Your task to perform on an android device: Open Google Chrome and click the shortcut for Amazon.com Image 0: 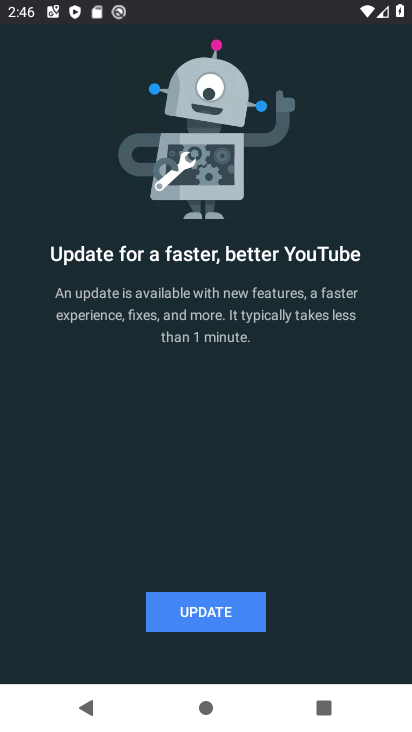
Step 0: press home button
Your task to perform on an android device: Open Google Chrome and click the shortcut for Amazon.com Image 1: 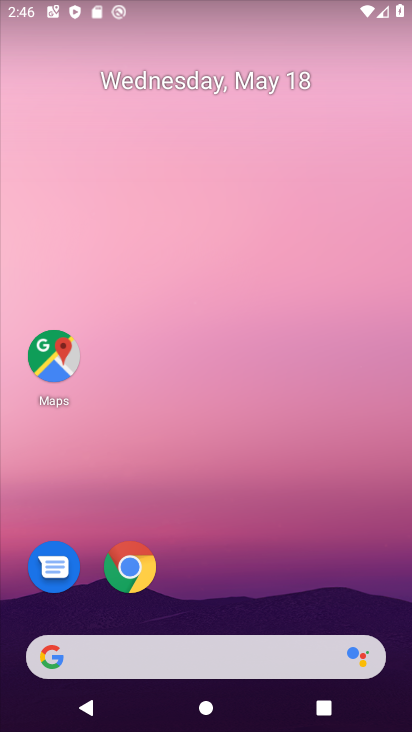
Step 1: click (120, 580)
Your task to perform on an android device: Open Google Chrome and click the shortcut for Amazon.com Image 2: 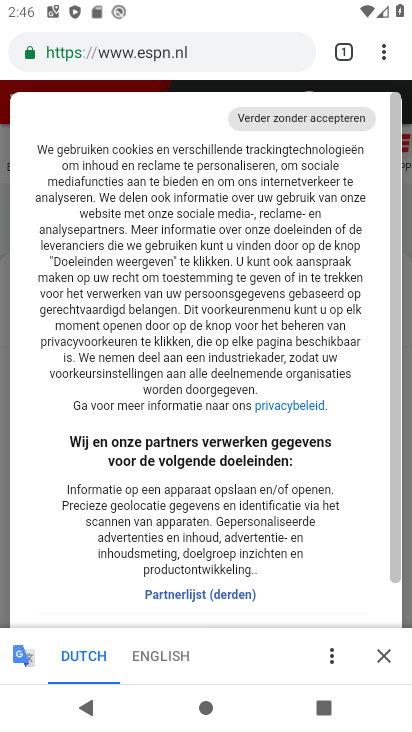
Step 2: press back button
Your task to perform on an android device: Open Google Chrome and click the shortcut for Amazon.com Image 3: 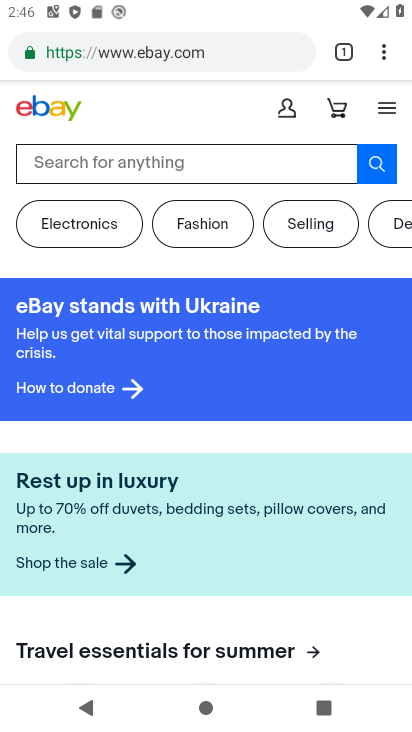
Step 3: press back button
Your task to perform on an android device: Open Google Chrome and click the shortcut for Amazon.com Image 4: 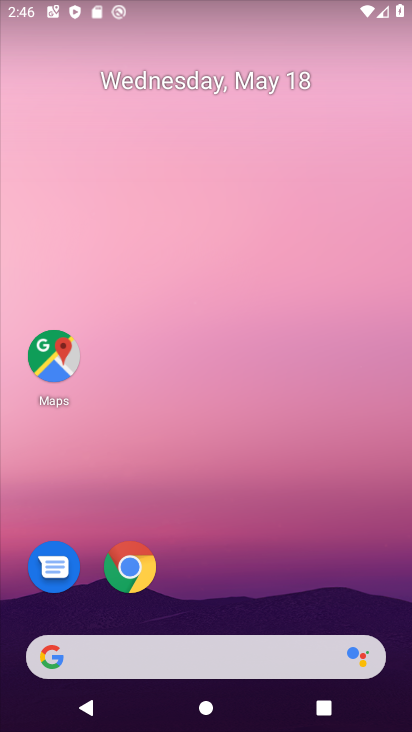
Step 4: drag from (265, 588) to (326, 297)
Your task to perform on an android device: Open Google Chrome and click the shortcut for Amazon.com Image 5: 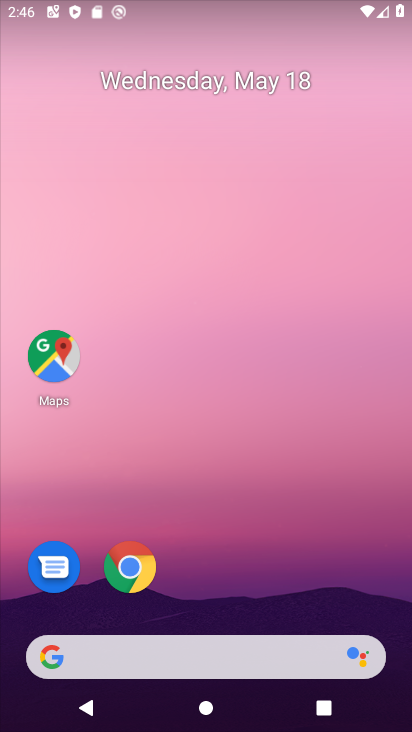
Step 5: drag from (180, 584) to (227, 0)
Your task to perform on an android device: Open Google Chrome and click the shortcut for Amazon.com Image 6: 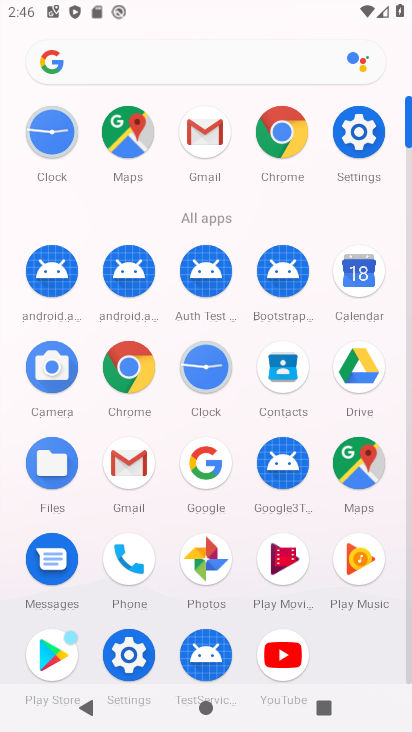
Step 6: click (279, 188)
Your task to perform on an android device: Open Google Chrome and click the shortcut for Amazon.com Image 7: 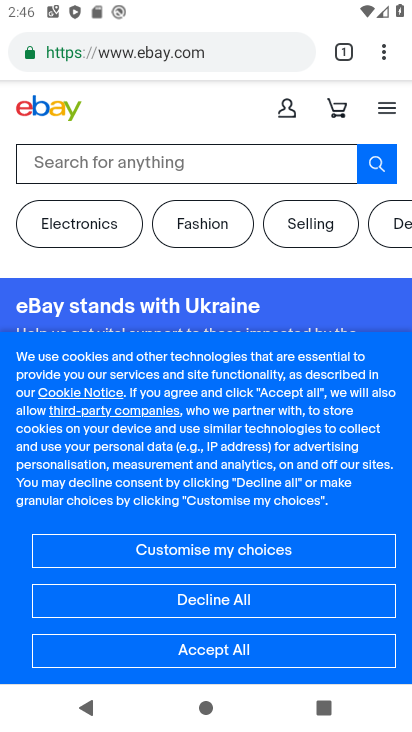
Step 7: press back button
Your task to perform on an android device: Open Google Chrome and click the shortcut for Amazon.com Image 8: 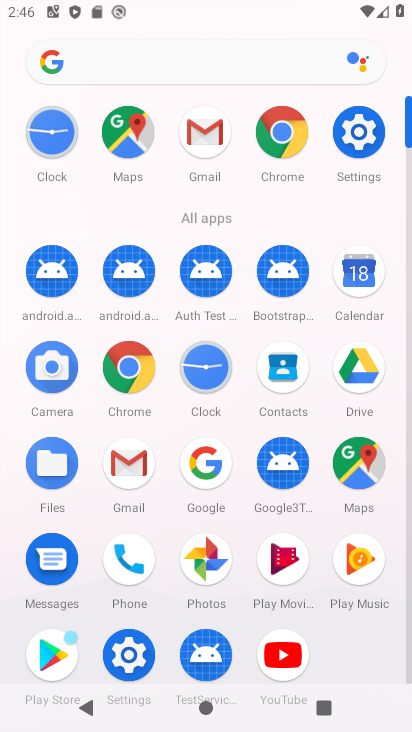
Step 8: click (293, 157)
Your task to perform on an android device: Open Google Chrome and click the shortcut for Amazon.com Image 9: 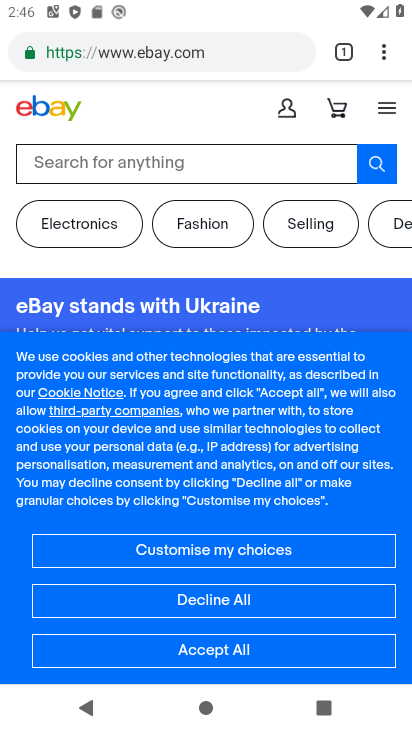
Step 9: click (112, 45)
Your task to perform on an android device: Open Google Chrome and click the shortcut for Amazon.com Image 10: 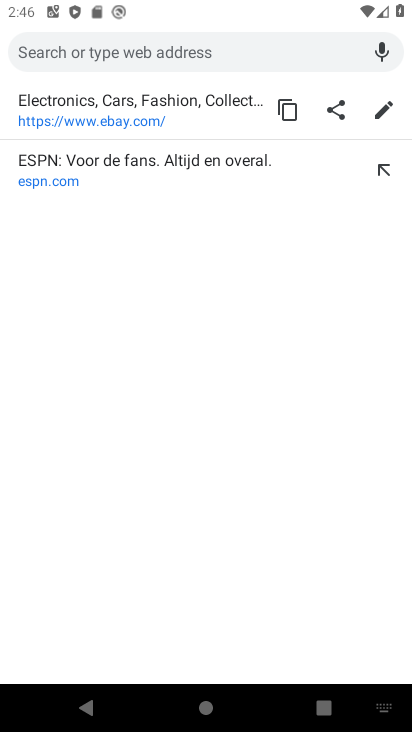
Step 10: type "www.amazon.com"
Your task to perform on an android device: Open Google Chrome and click the shortcut for Amazon.com Image 11: 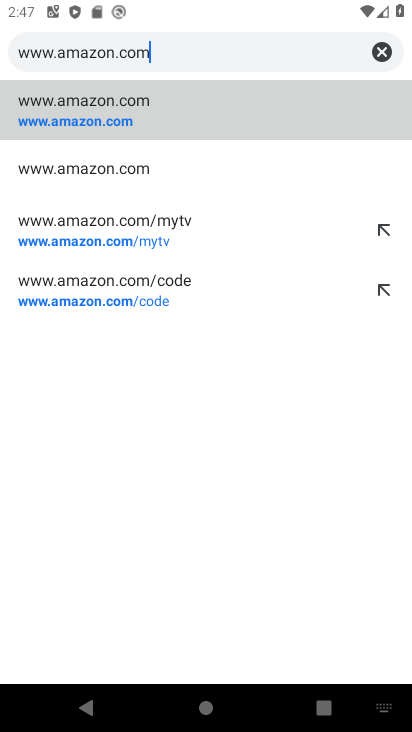
Step 11: click (108, 126)
Your task to perform on an android device: Open Google Chrome and click the shortcut for Amazon.com Image 12: 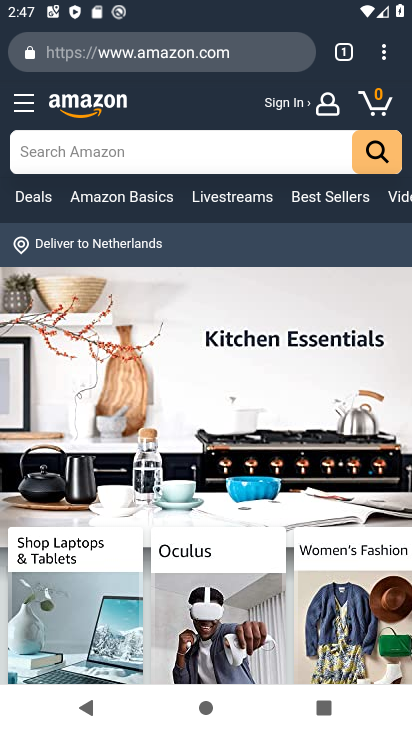
Step 12: task complete